Your task to perform on an android device: Open Chrome and go to settings Image 0: 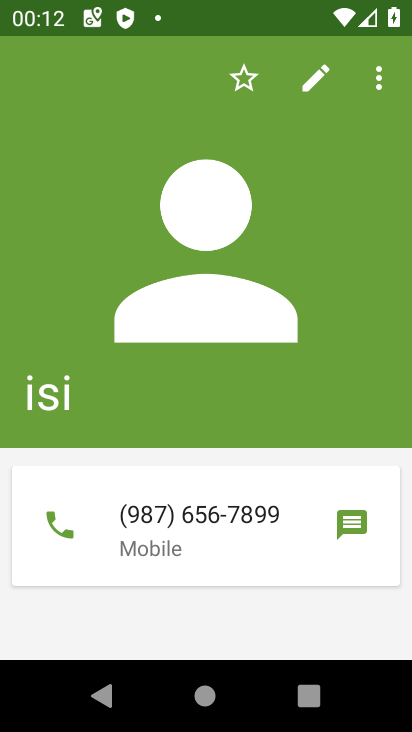
Step 0: press home button
Your task to perform on an android device: Open Chrome and go to settings Image 1: 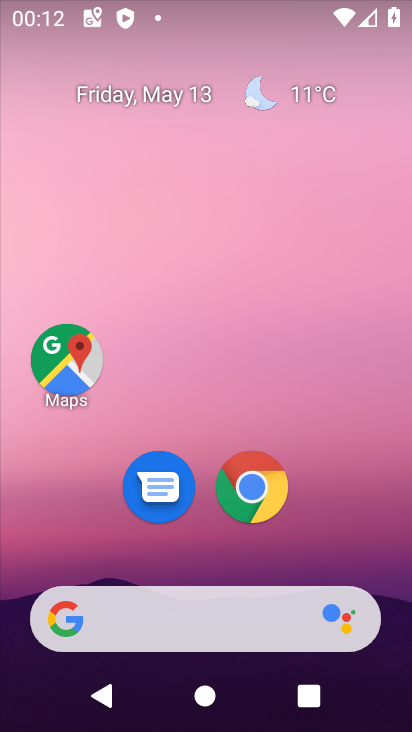
Step 1: click (248, 488)
Your task to perform on an android device: Open Chrome and go to settings Image 2: 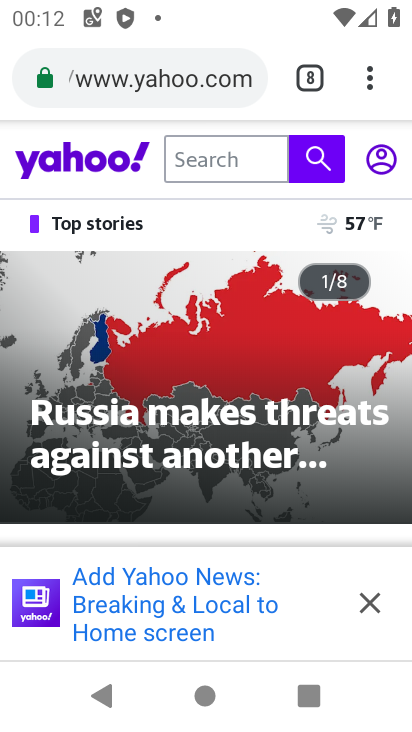
Step 2: click (374, 72)
Your task to perform on an android device: Open Chrome and go to settings Image 3: 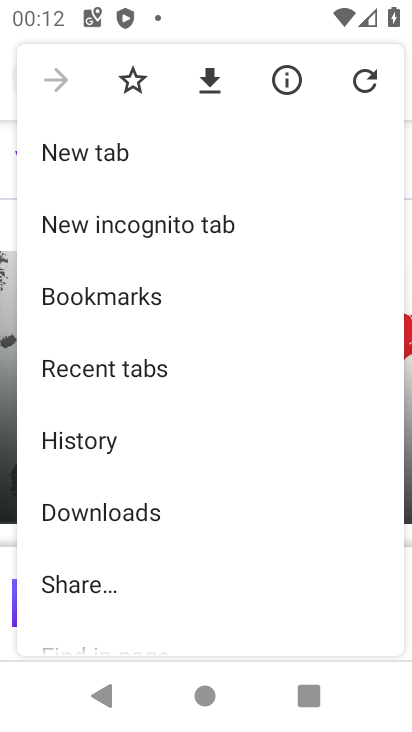
Step 3: drag from (140, 590) to (191, 212)
Your task to perform on an android device: Open Chrome and go to settings Image 4: 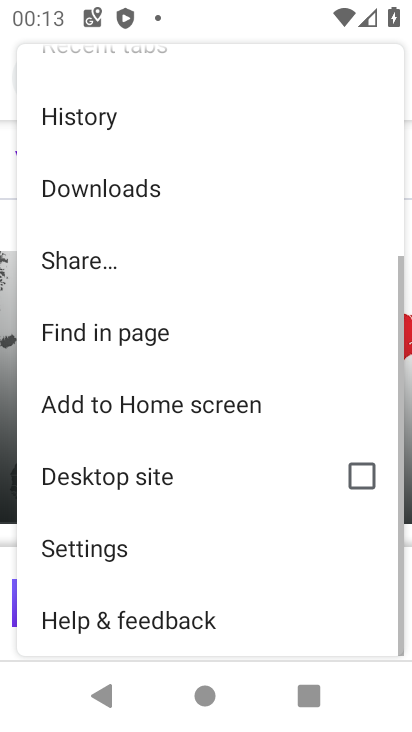
Step 4: click (119, 531)
Your task to perform on an android device: Open Chrome and go to settings Image 5: 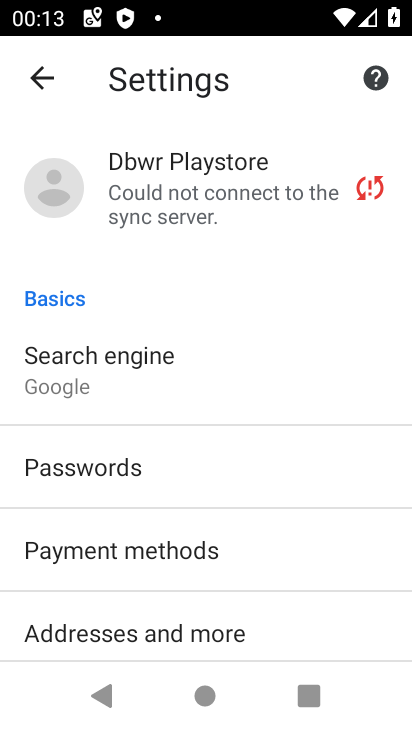
Step 5: task complete